Your task to perform on an android device: toggle improve location accuracy Image 0: 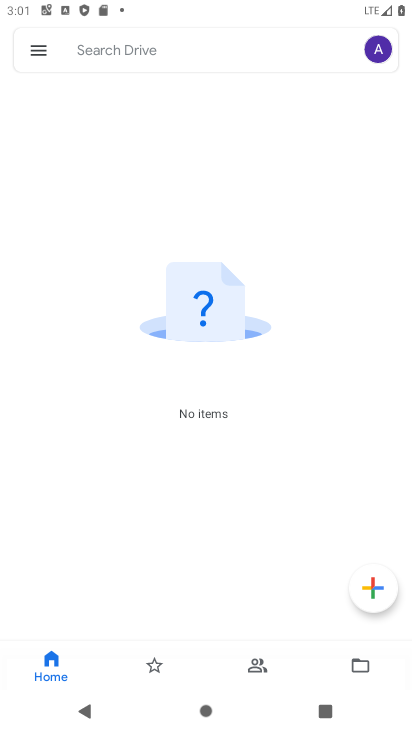
Step 0: press home button
Your task to perform on an android device: toggle improve location accuracy Image 1: 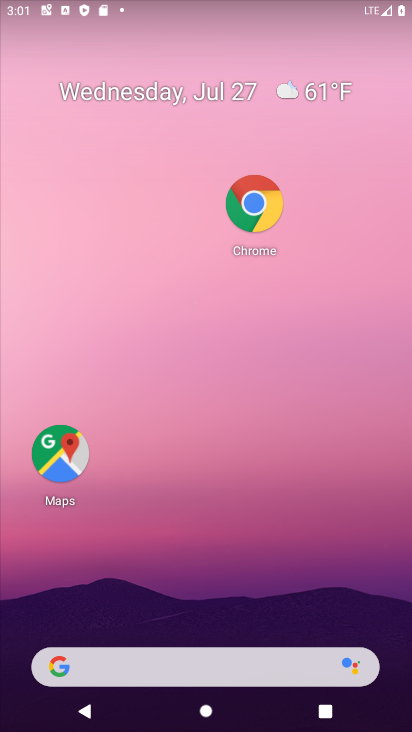
Step 1: click (234, 230)
Your task to perform on an android device: toggle improve location accuracy Image 2: 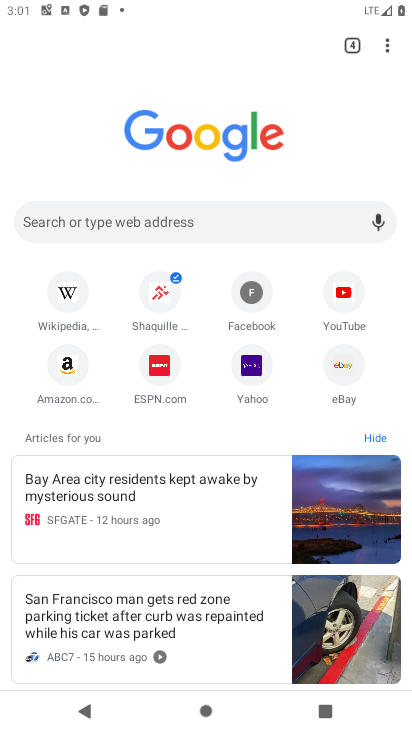
Step 2: click (387, 43)
Your task to perform on an android device: toggle improve location accuracy Image 3: 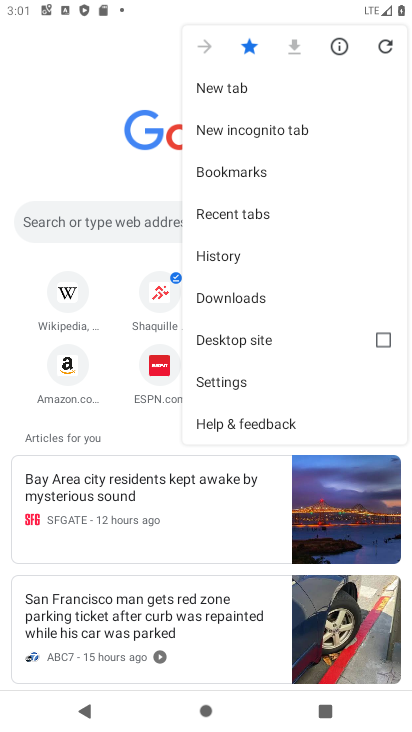
Step 3: press home button
Your task to perform on an android device: toggle improve location accuracy Image 4: 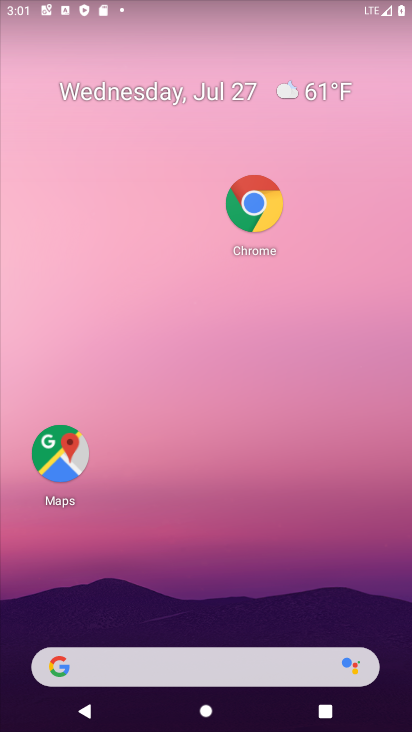
Step 4: drag from (186, 459) to (188, 136)
Your task to perform on an android device: toggle improve location accuracy Image 5: 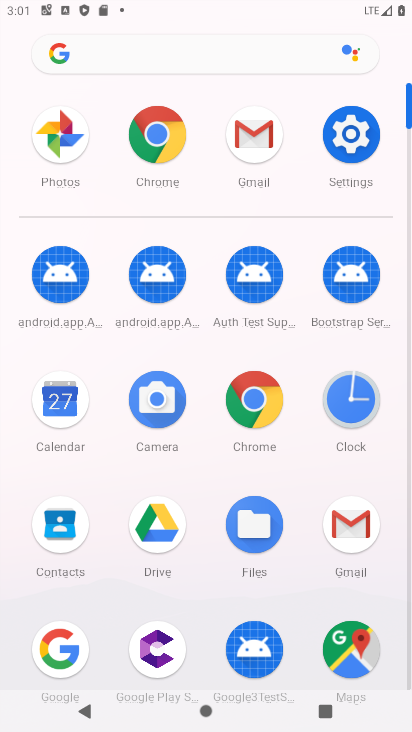
Step 5: click (352, 145)
Your task to perform on an android device: toggle improve location accuracy Image 6: 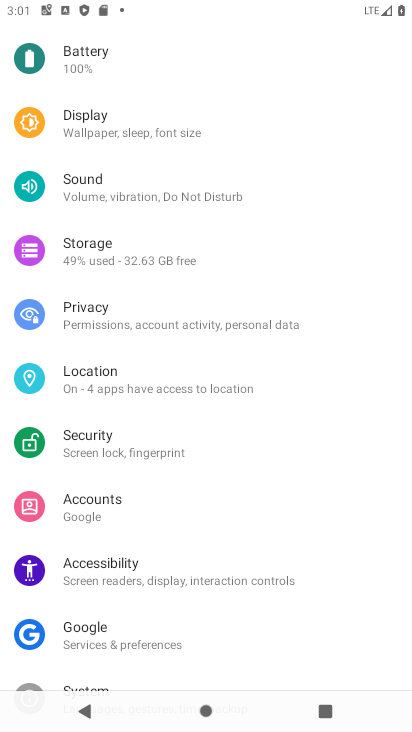
Step 6: click (150, 378)
Your task to perform on an android device: toggle improve location accuracy Image 7: 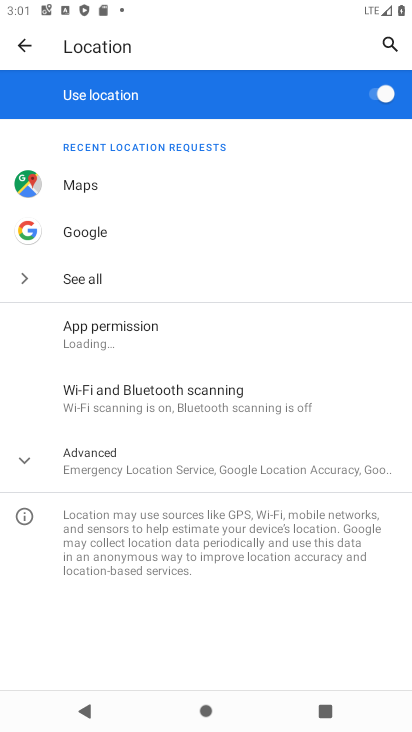
Step 7: click (141, 457)
Your task to perform on an android device: toggle improve location accuracy Image 8: 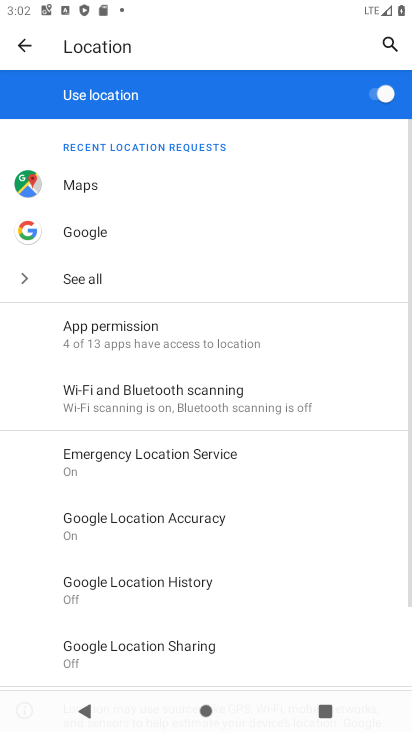
Step 8: click (200, 523)
Your task to perform on an android device: toggle improve location accuracy Image 9: 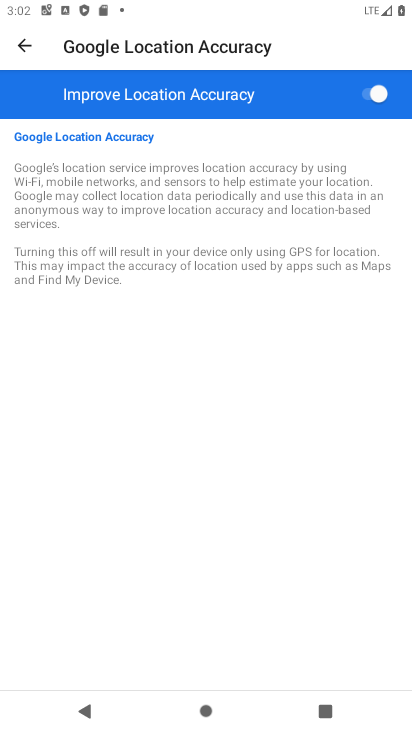
Step 9: click (380, 88)
Your task to perform on an android device: toggle improve location accuracy Image 10: 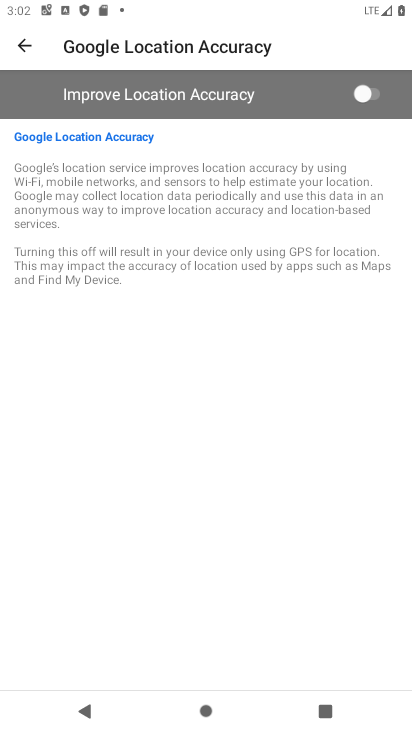
Step 10: task complete